Your task to perform on an android device: turn off improve location accuracy Image 0: 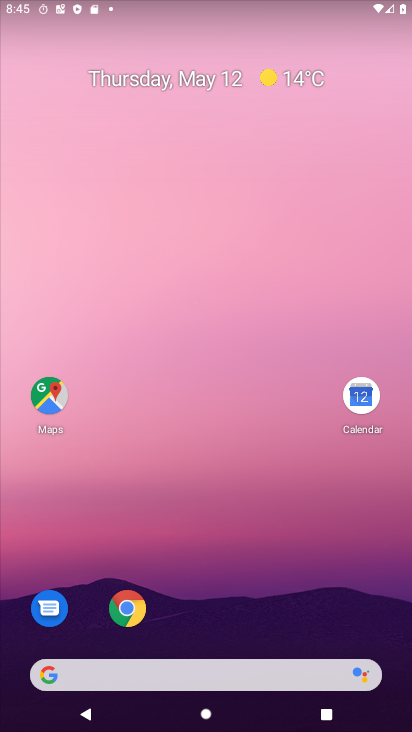
Step 0: drag from (260, 400) to (260, 88)
Your task to perform on an android device: turn off improve location accuracy Image 1: 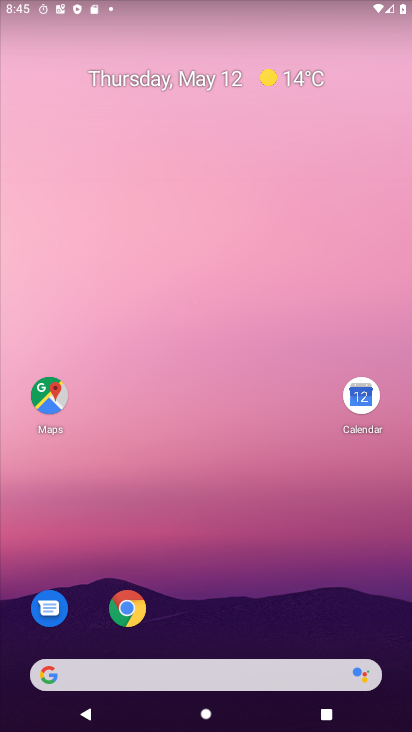
Step 1: drag from (260, 565) to (249, 157)
Your task to perform on an android device: turn off improve location accuracy Image 2: 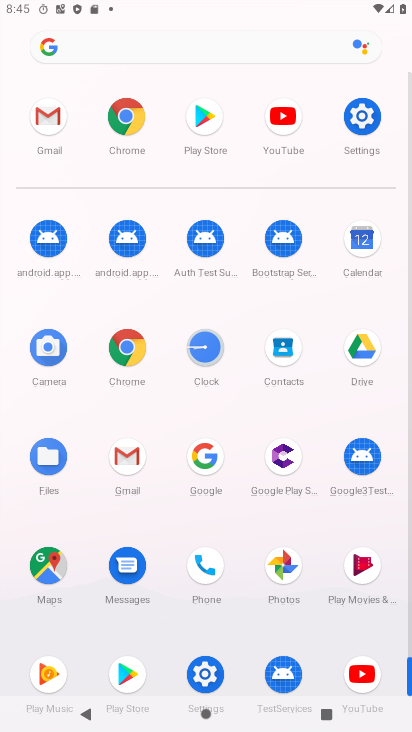
Step 2: click (365, 125)
Your task to perform on an android device: turn off improve location accuracy Image 3: 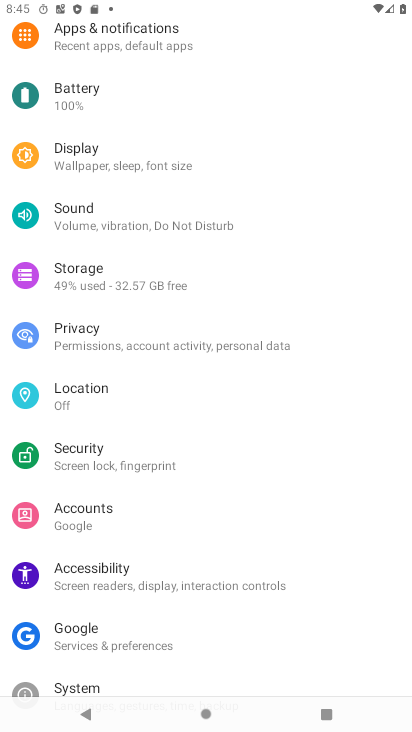
Step 3: click (103, 394)
Your task to perform on an android device: turn off improve location accuracy Image 4: 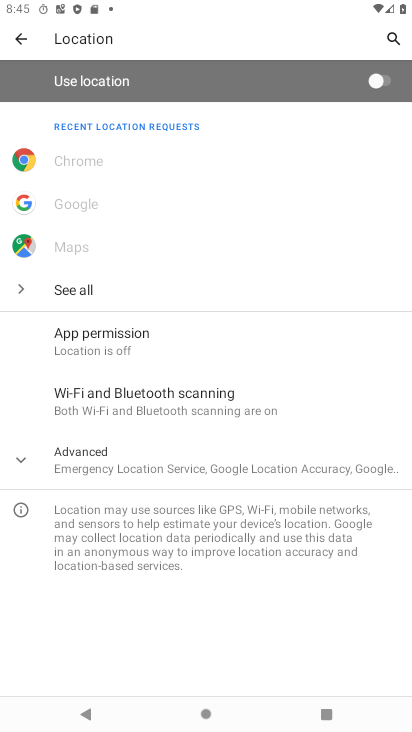
Step 4: click (22, 37)
Your task to perform on an android device: turn off improve location accuracy Image 5: 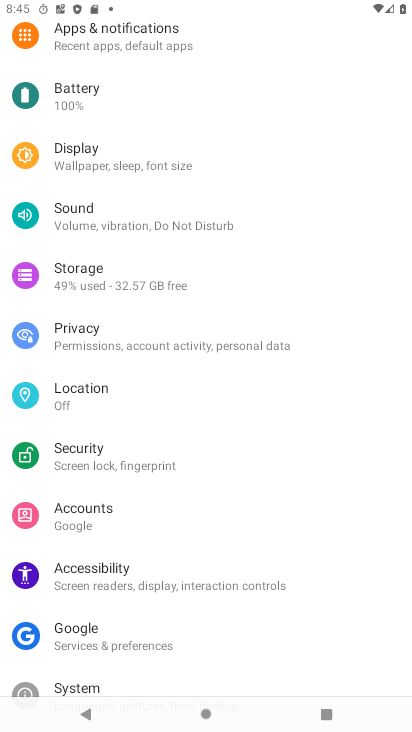
Step 5: drag from (231, 100) to (395, 635)
Your task to perform on an android device: turn off improve location accuracy Image 6: 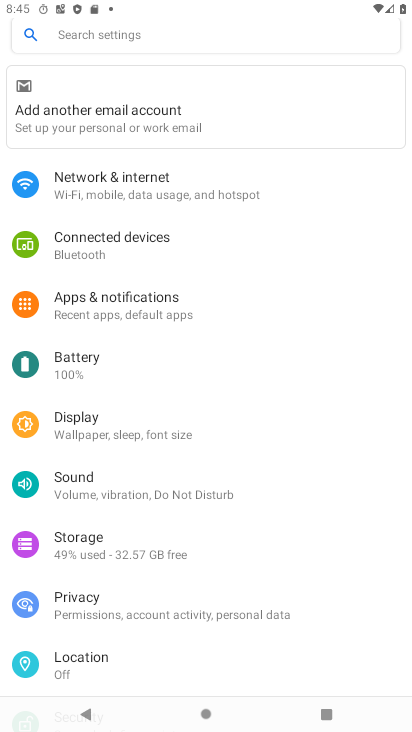
Step 6: drag from (392, 562) to (251, 69)
Your task to perform on an android device: turn off improve location accuracy Image 7: 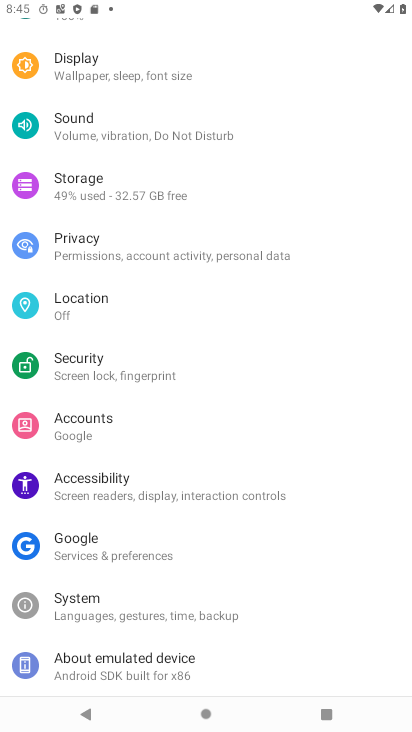
Step 7: drag from (245, 578) to (243, 63)
Your task to perform on an android device: turn off improve location accuracy Image 8: 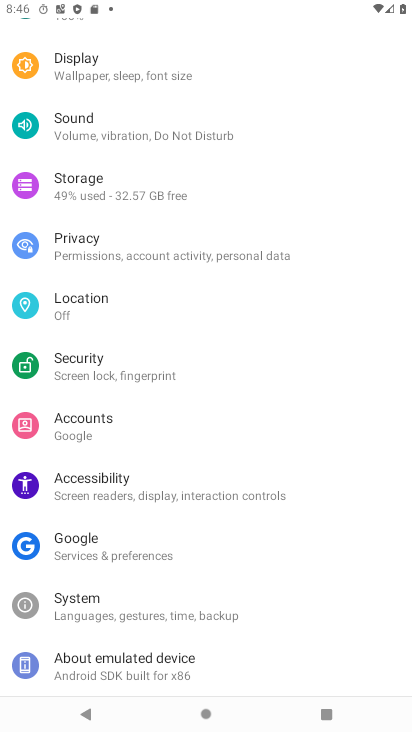
Step 8: click (210, 669)
Your task to perform on an android device: turn off improve location accuracy Image 9: 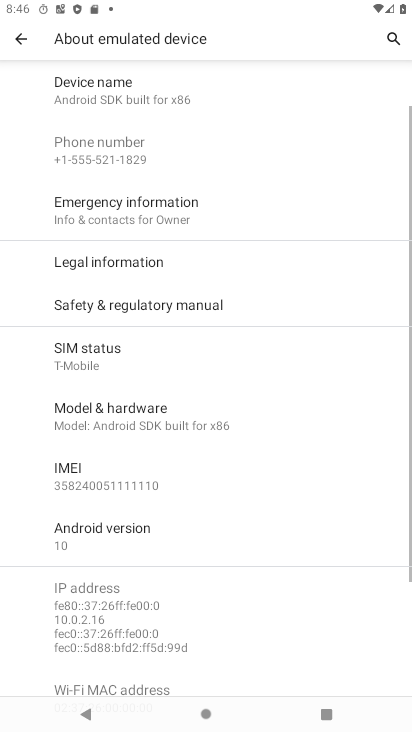
Step 9: drag from (245, 525) to (235, 11)
Your task to perform on an android device: turn off improve location accuracy Image 10: 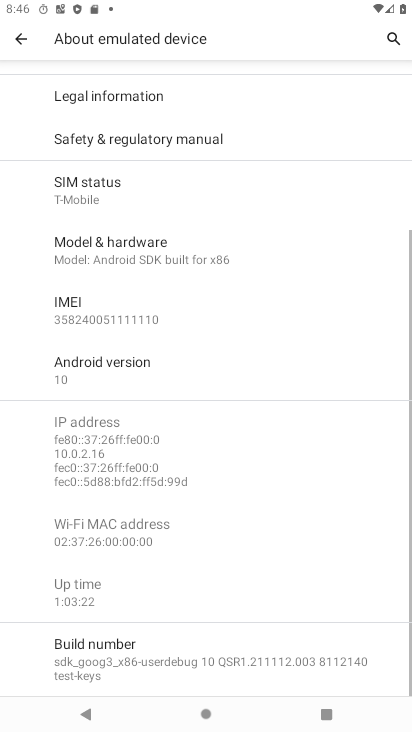
Step 10: press back button
Your task to perform on an android device: turn off improve location accuracy Image 11: 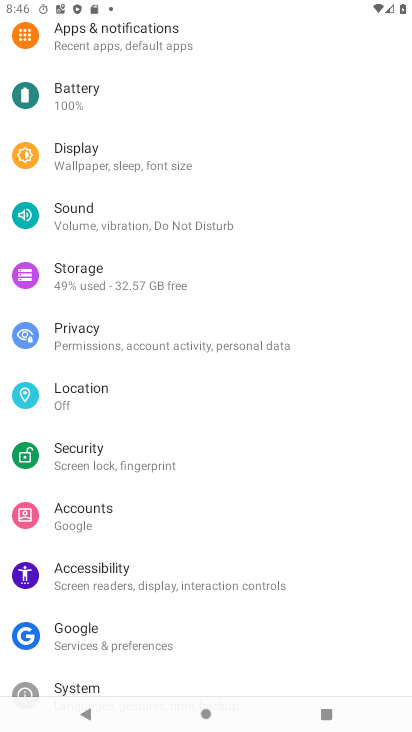
Step 11: click (165, 578)
Your task to perform on an android device: turn off improve location accuracy Image 12: 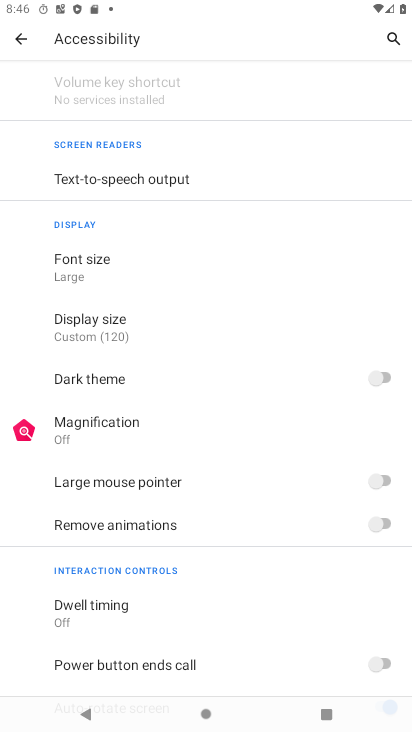
Step 12: task complete